Your task to perform on an android device: What's the weather going to be tomorrow? Image 0: 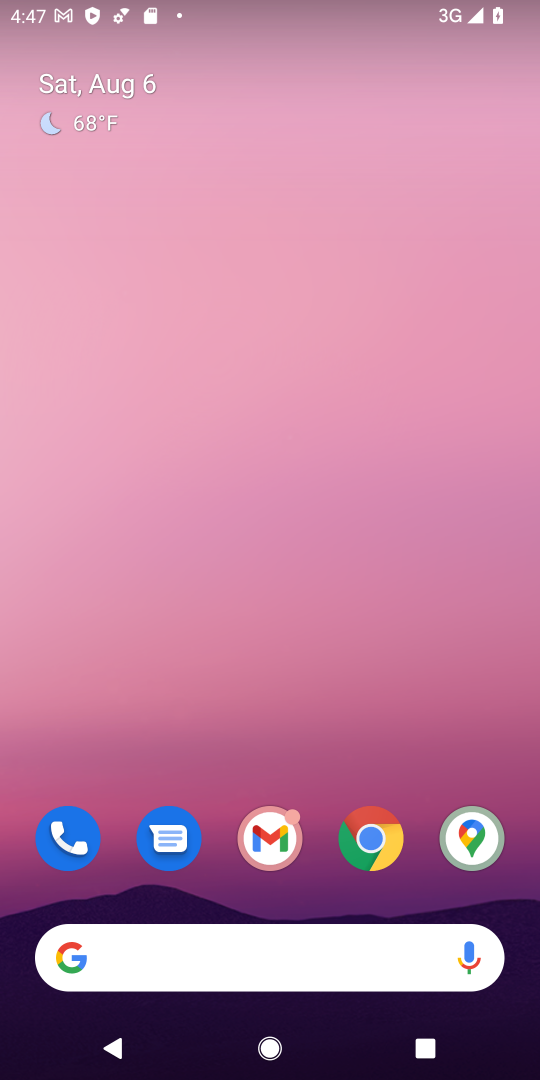
Step 0: click (287, 955)
Your task to perform on an android device: What's the weather going to be tomorrow? Image 1: 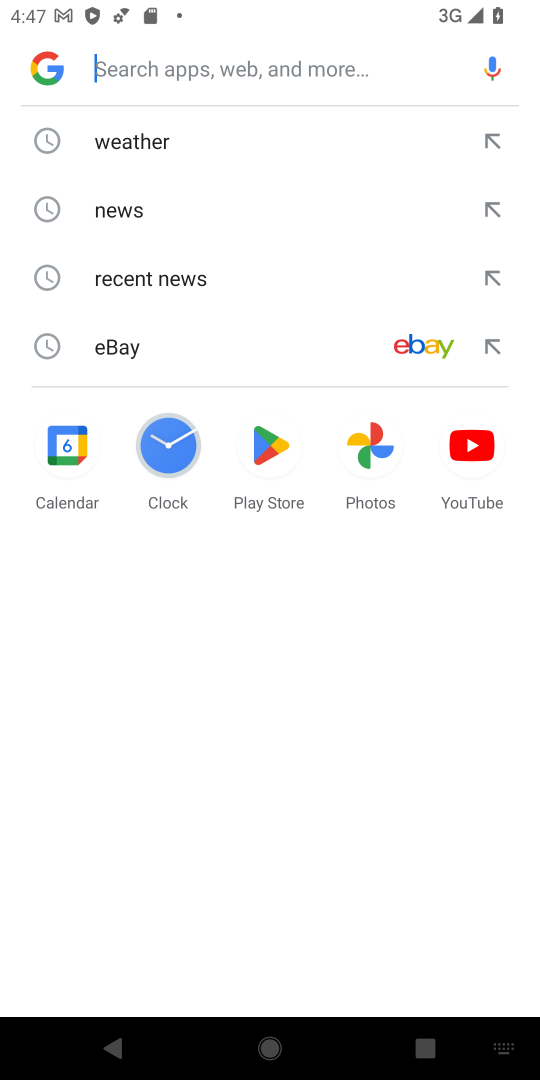
Step 1: click (243, 146)
Your task to perform on an android device: What's the weather going to be tomorrow? Image 2: 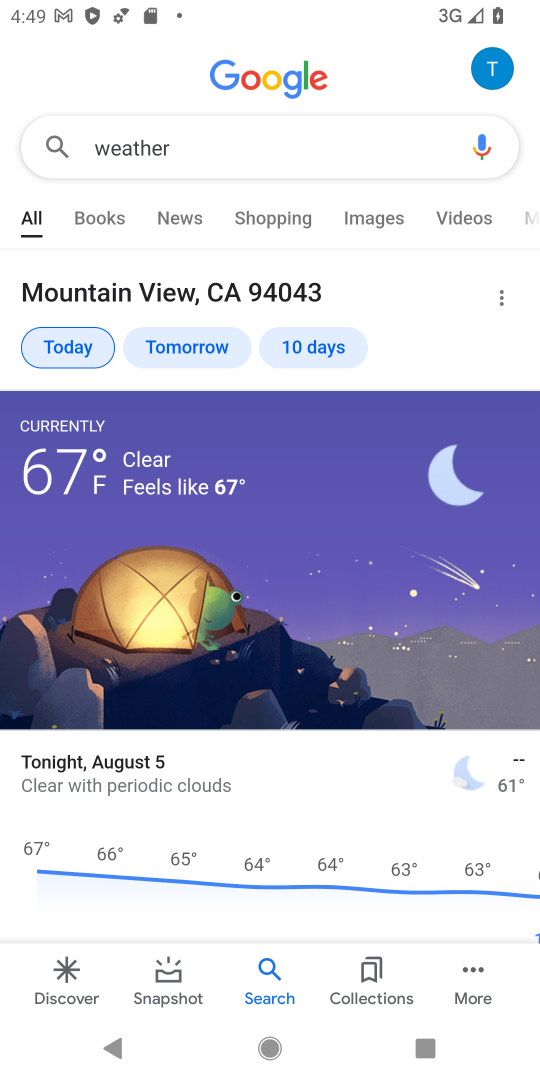
Step 2: click (212, 353)
Your task to perform on an android device: What's the weather going to be tomorrow? Image 3: 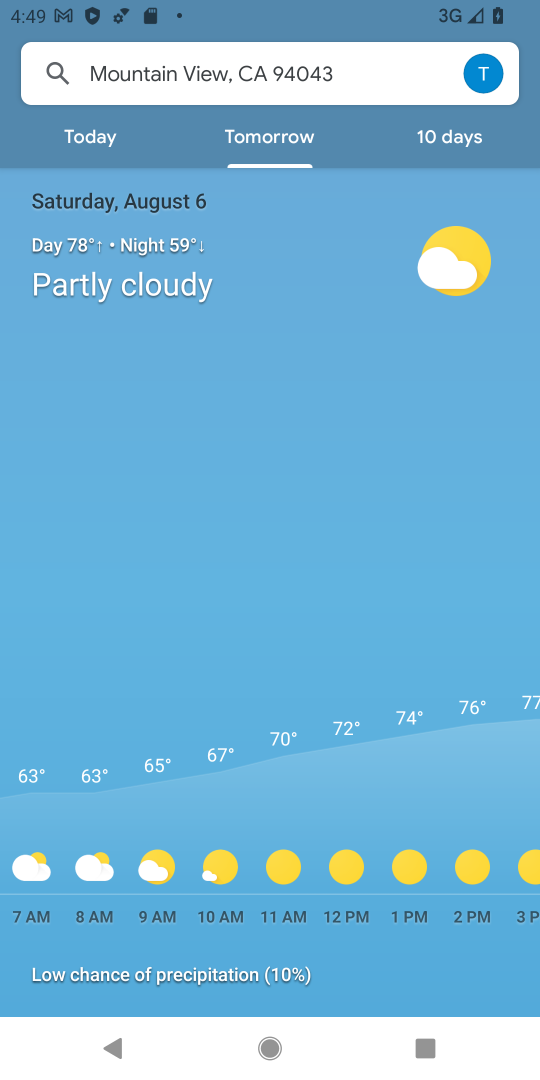
Step 3: task complete